Your task to perform on an android device: Go to Google maps Image 0: 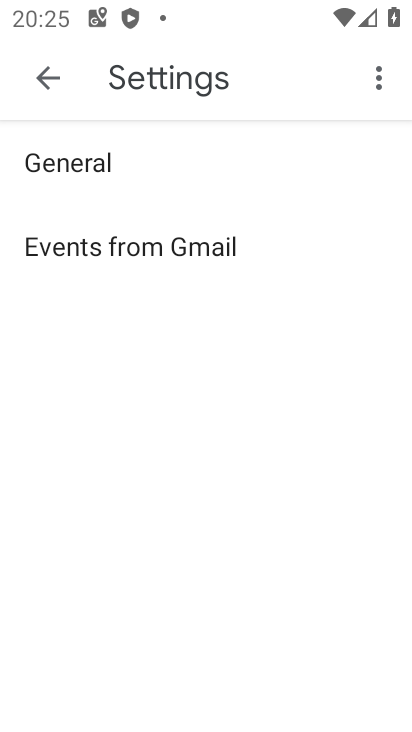
Step 0: press home button
Your task to perform on an android device: Go to Google maps Image 1: 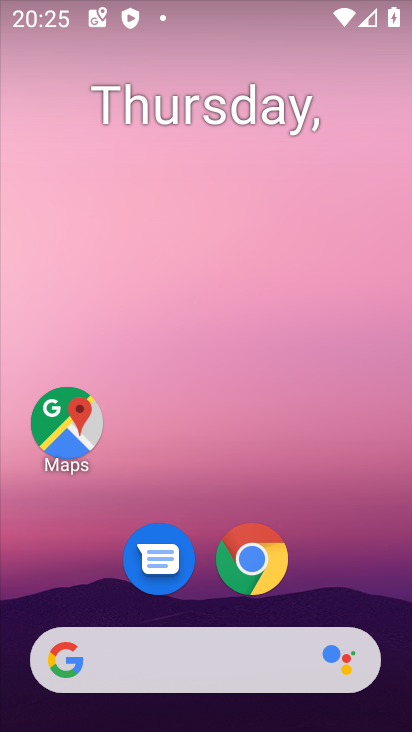
Step 1: click (76, 436)
Your task to perform on an android device: Go to Google maps Image 2: 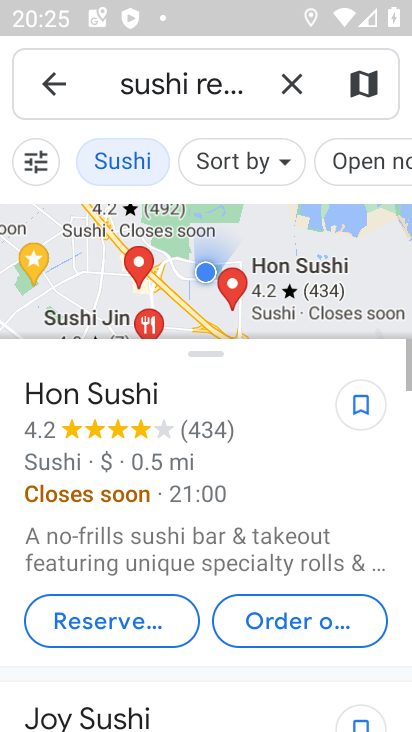
Step 2: task complete